Your task to perform on an android device: turn off wifi Image 0: 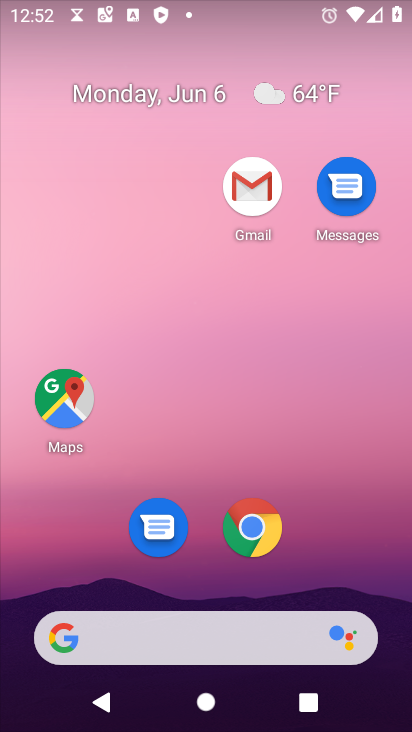
Step 0: drag from (339, 482) to (401, 23)
Your task to perform on an android device: turn off wifi Image 1: 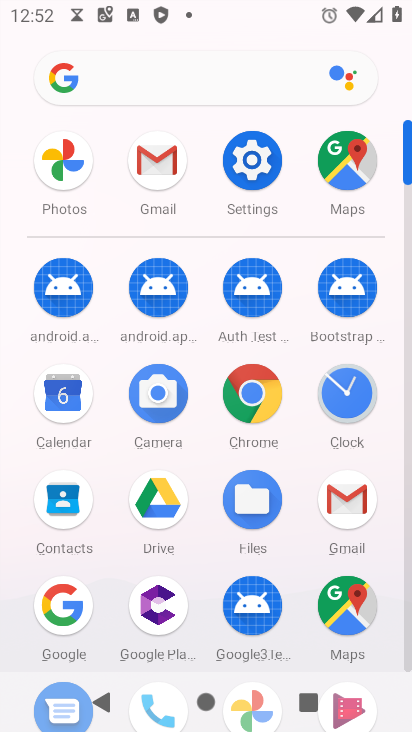
Step 1: click (231, 164)
Your task to perform on an android device: turn off wifi Image 2: 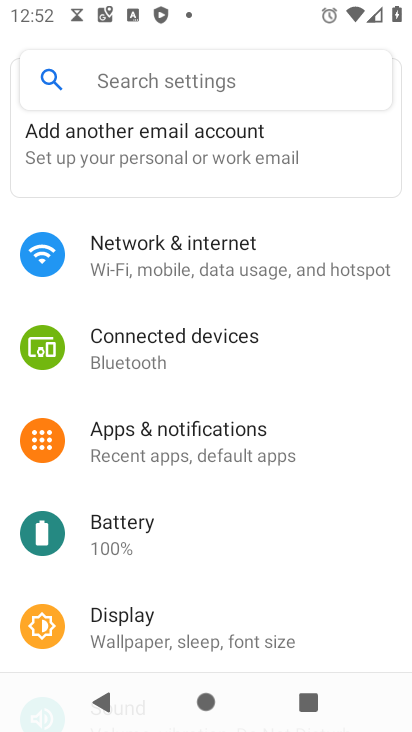
Step 2: click (261, 271)
Your task to perform on an android device: turn off wifi Image 3: 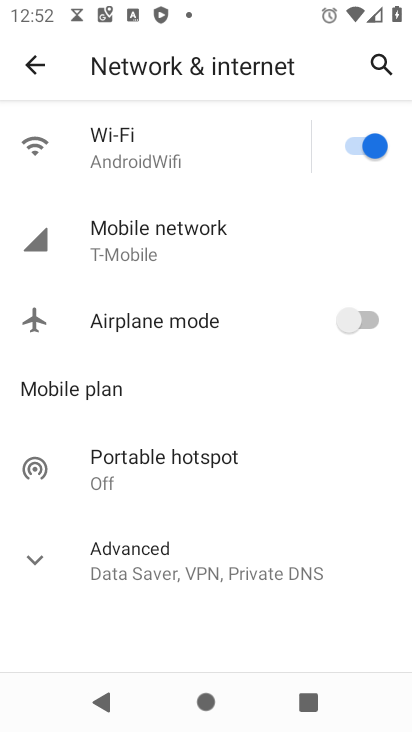
Step 3: click (374, 135)
Your task to perform on an android device: turn off wifi Image 4: 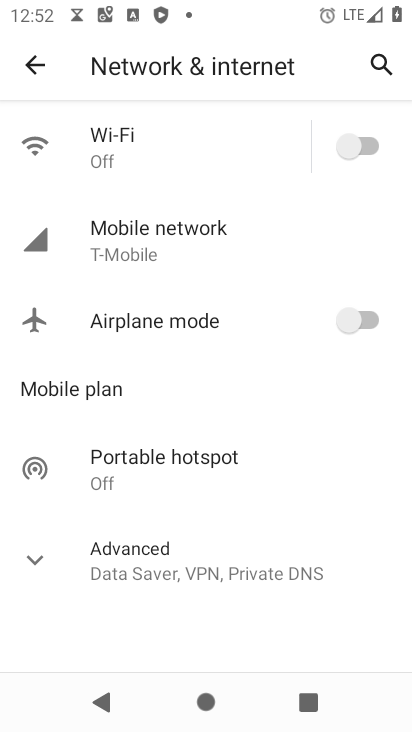
Step 4: task complete